Your task to perform on an android device: turn off notifications in google photos Image 0: 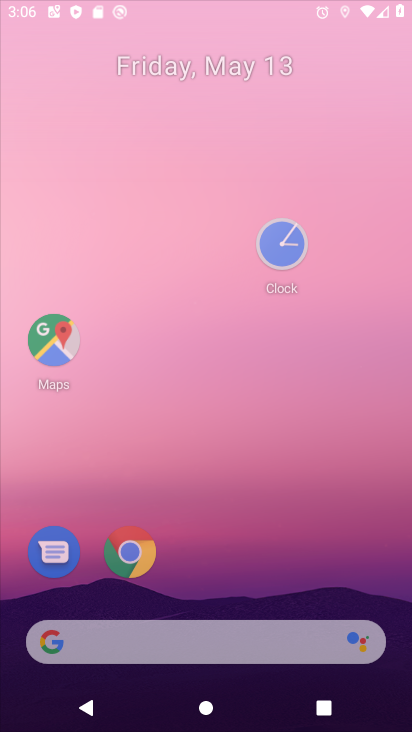
Step 0: drag from (311, 84) to (331, 0)
Your task to perform on an android device: turn off notifications in google photos Image 1: 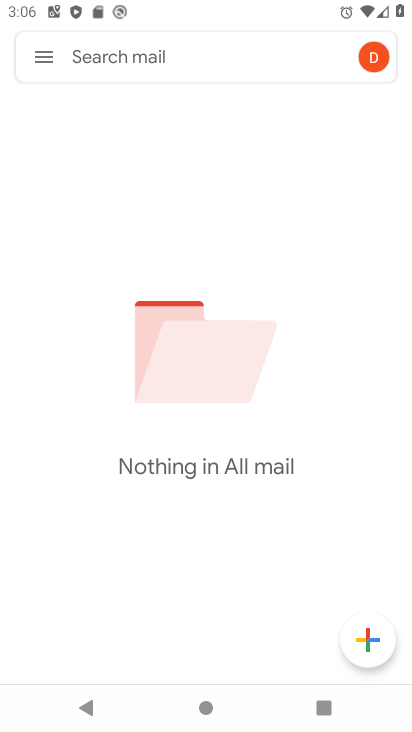
Step 1: press home button
Your task to perform on an android device: turn off notifications in google photos Image 2: 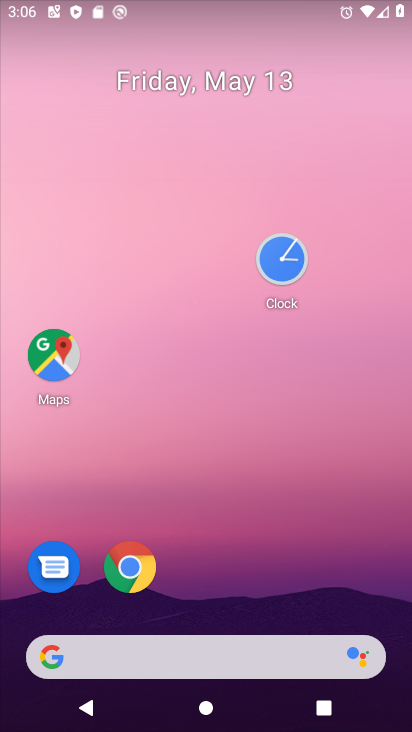
Step 2: drag from (267, 599) to (236, 201)
Your task to perform on an android device: turn off notifications in google photos Image 3: 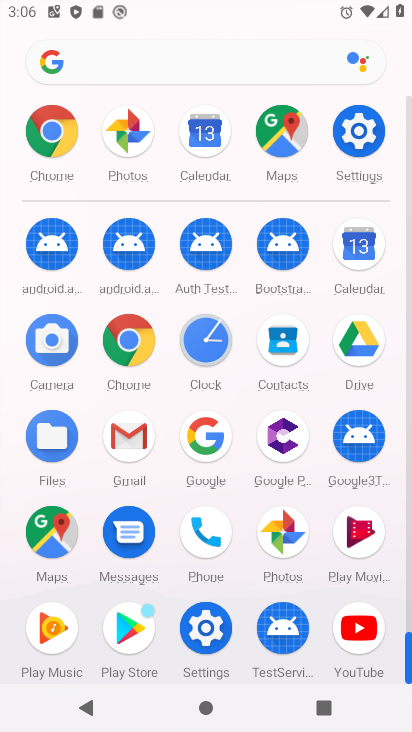
Step 3: click (357, 129)
Your task to perform on an android device: turn off notifications in google photos Image 4: 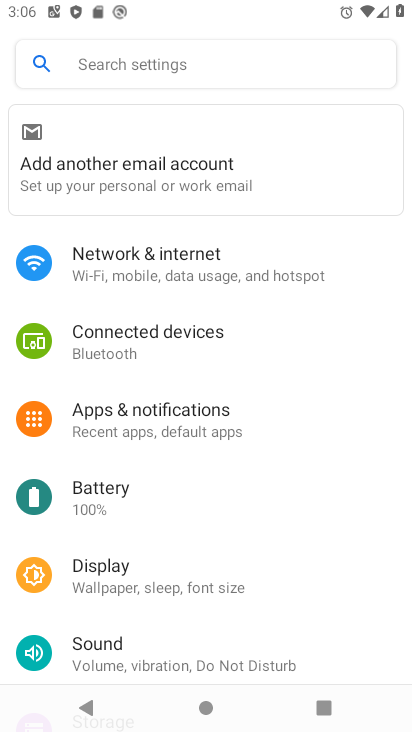
Step 4: press home button
Your task to perform on an android device: turn off notifications in google photos Image 5: 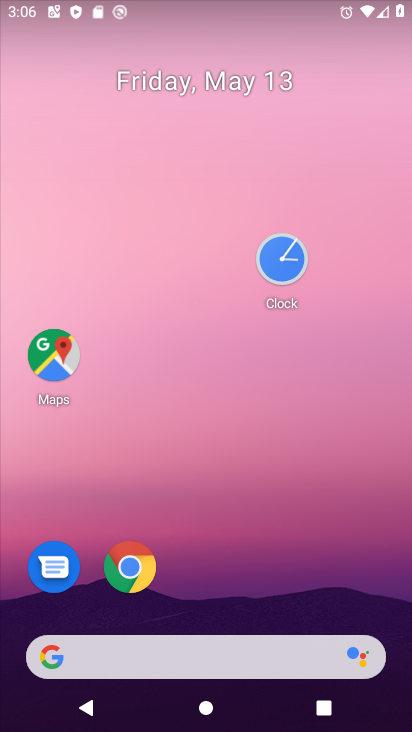
Step 5: drag from (233, 418) to (271, 98)
Your task to perform on an android device: turn off notifications in google photos Image 6: 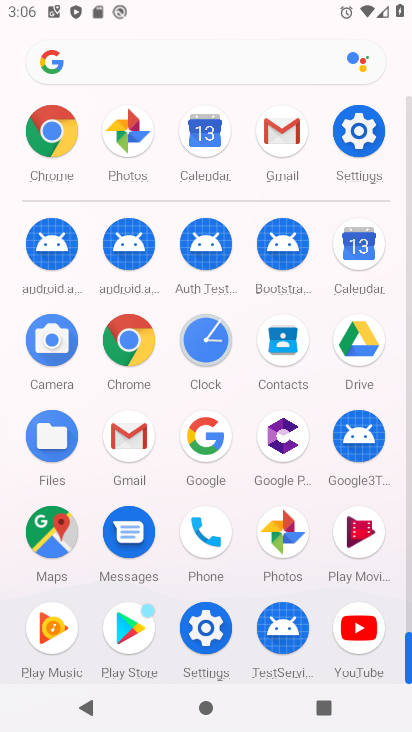
Step 6: click (276, 532)
Your task to perform on an android device: turn off notifications in google photos Image 7: 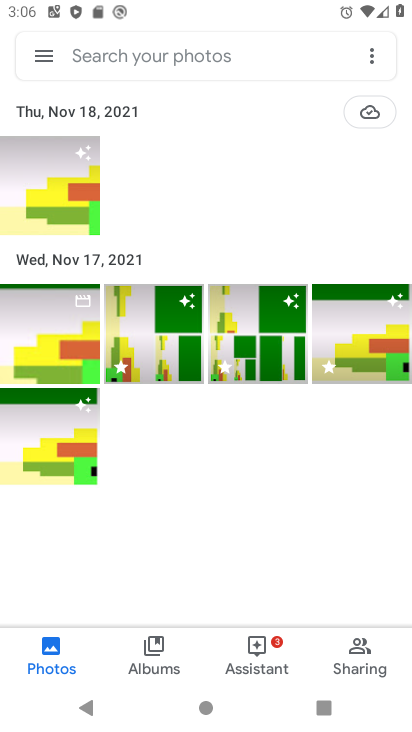
Step 7: click (29, 58)
Your task to perform on an android device: turn off notifications in google photos Image 8: 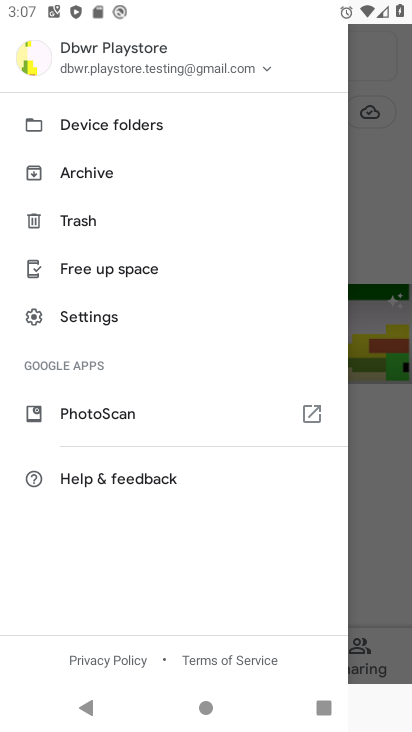
Step 8: click (99, 310)
Your task to perform on an android device: turn off notifications in google photos Image 9: 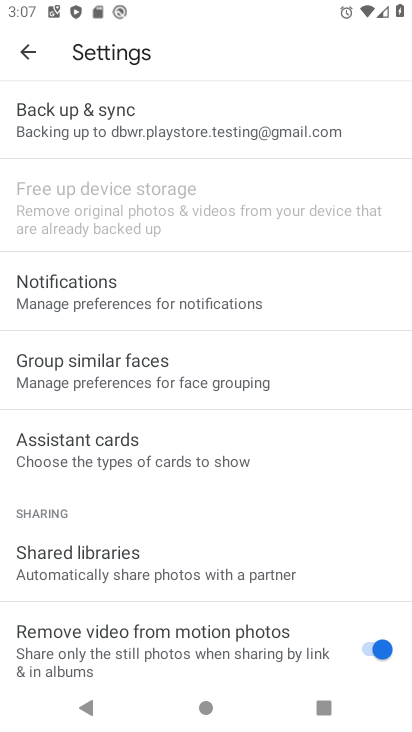
Step 9: drag from (129, 501) to (144, 301)
Your task to perform on an android device: turn off notifications in google photos Image 10: 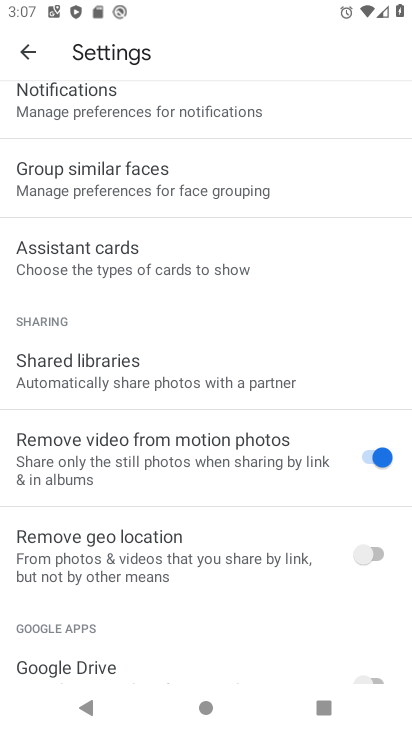
Step 10: drag from (172, 144) to (211, 543)
Your task to perform on an android device: turn off notifications in google photos Image 11: 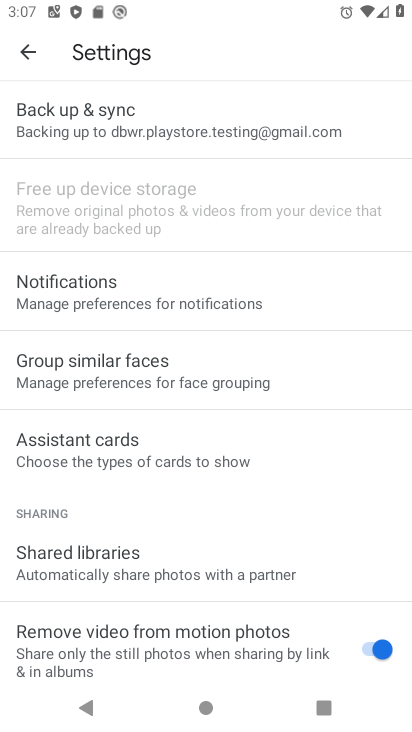
Step 11: click (212, 132)
Your task to perform on an android device: turn off notifications in google photos Image 12: 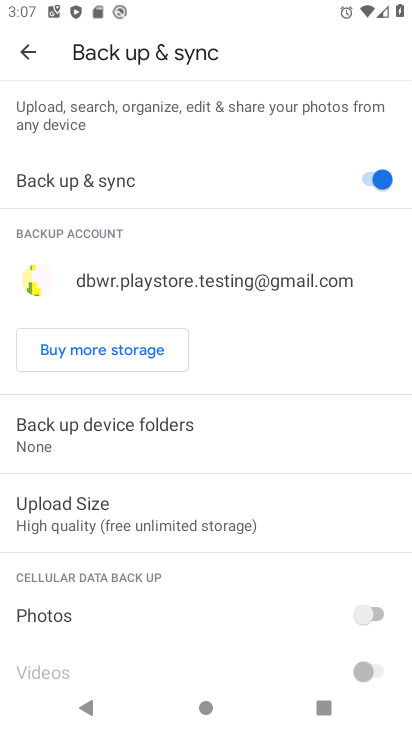
Step 12: task complete